Your task to perform on an android device: turn on improve location accuracy Image 0: 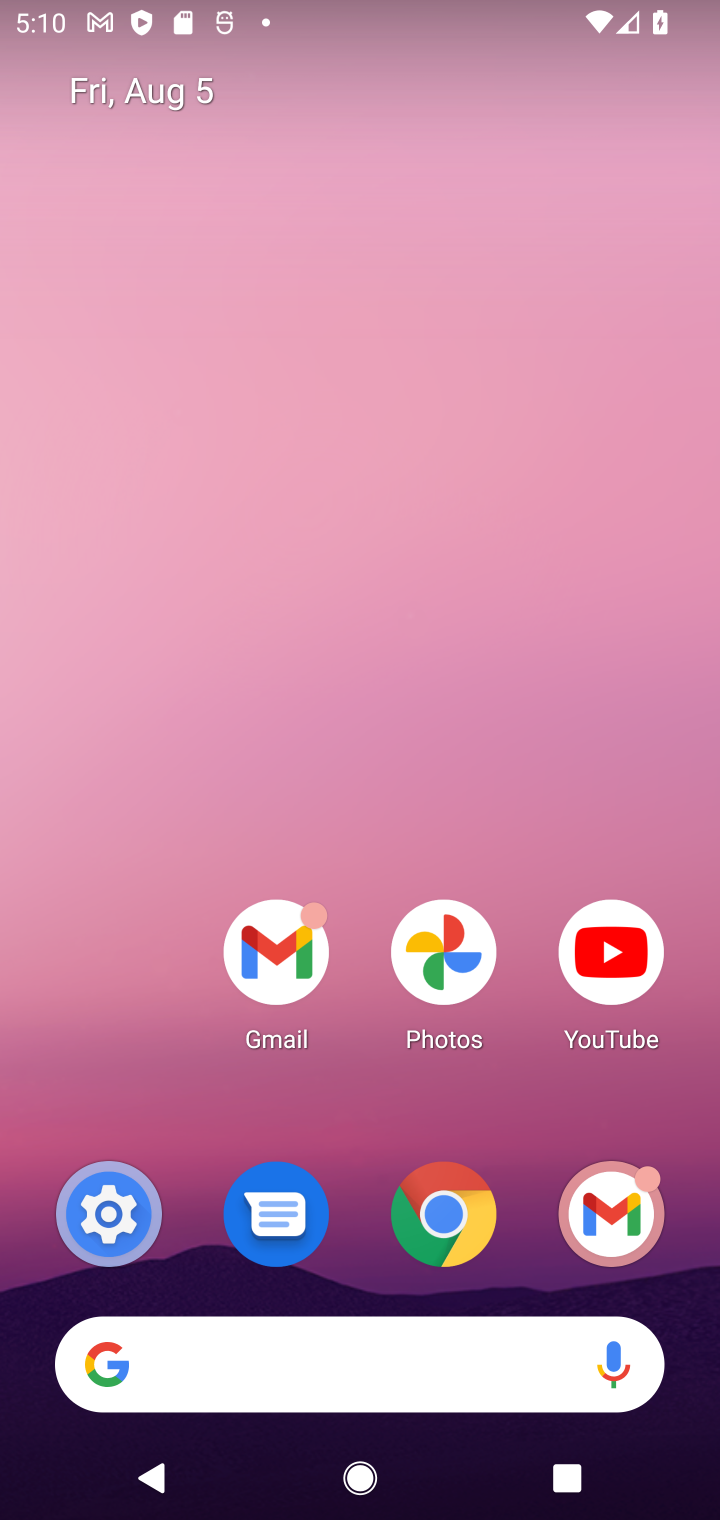
Step 0: click (111, 1238)
Your task to perform on an android device: turn on improve location accuracy Image 1: 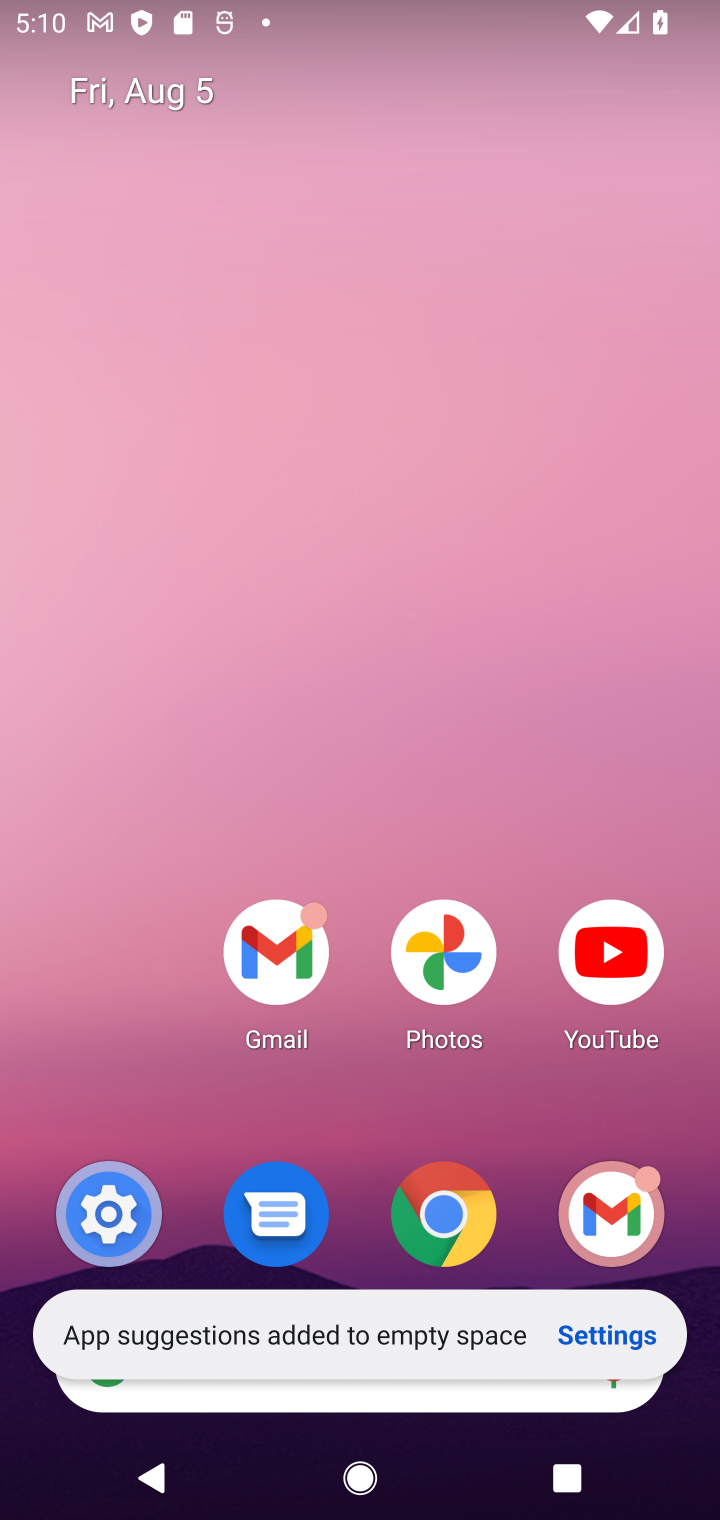
Step 1: click (111, 1238)
Your task to perform on an android device: turn on improve location accuracy Image 2: 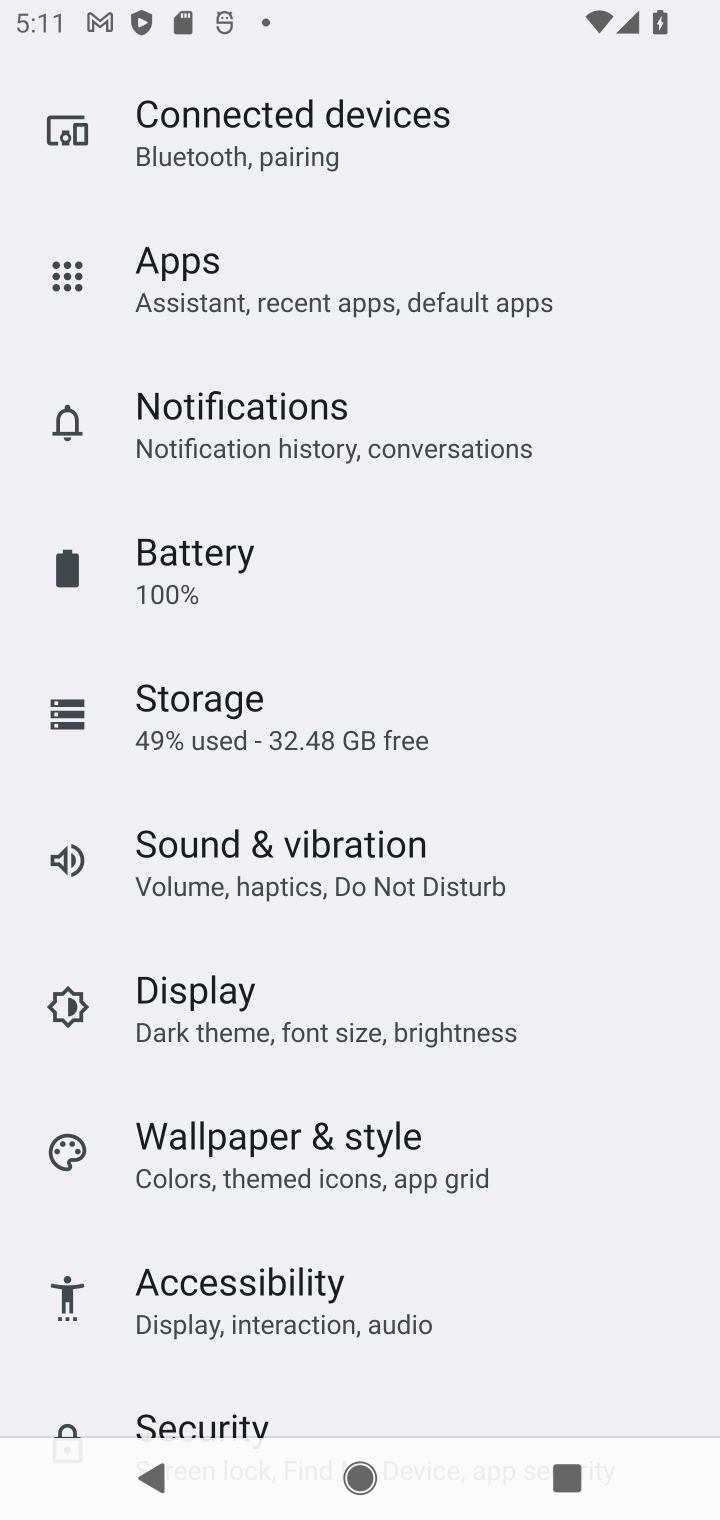
Step 2: drag from (440, 925) to (454, 0)
Your task to perform on an android device: turn on improve location accuracy Image 3: 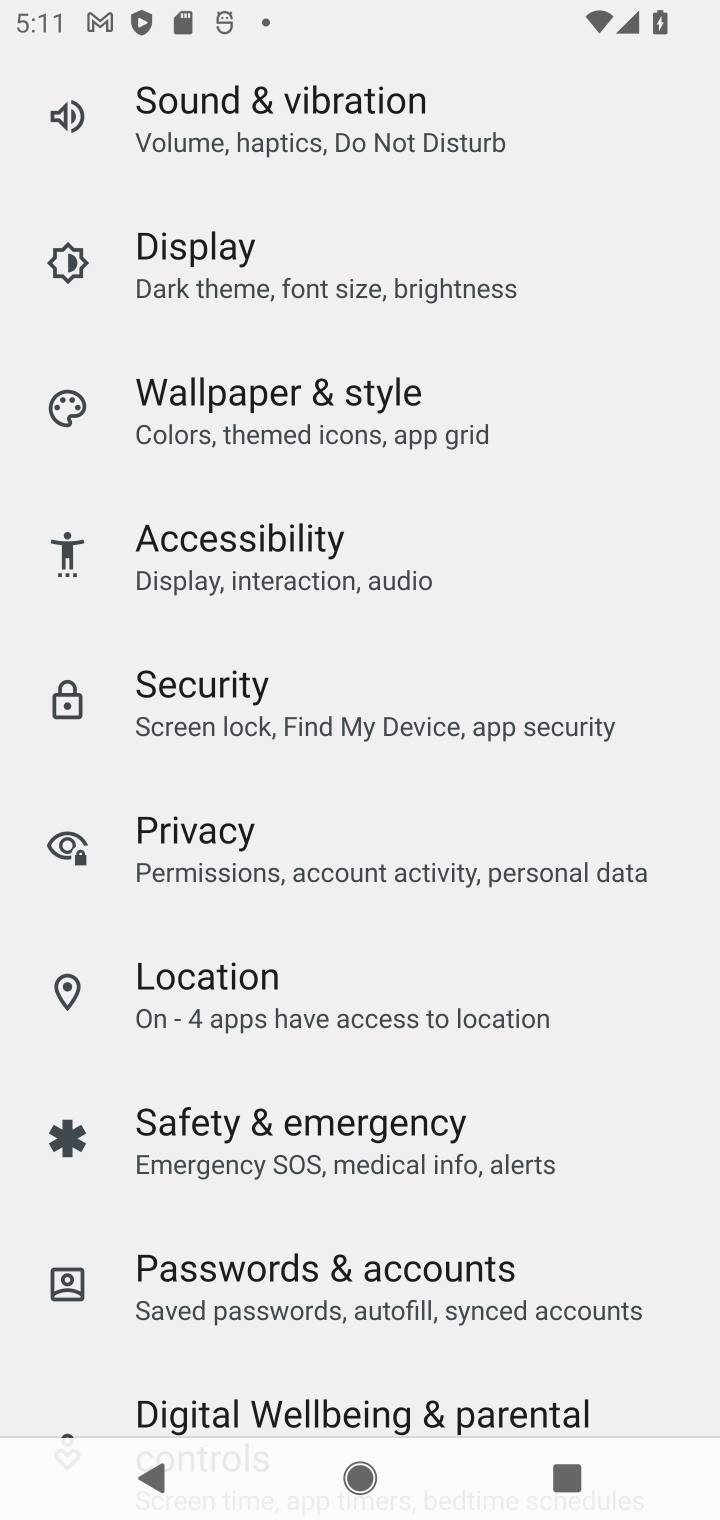
Step 3: click (308, 981)
Your task to perform on an android device: turn on improve location accuracy Image 4: 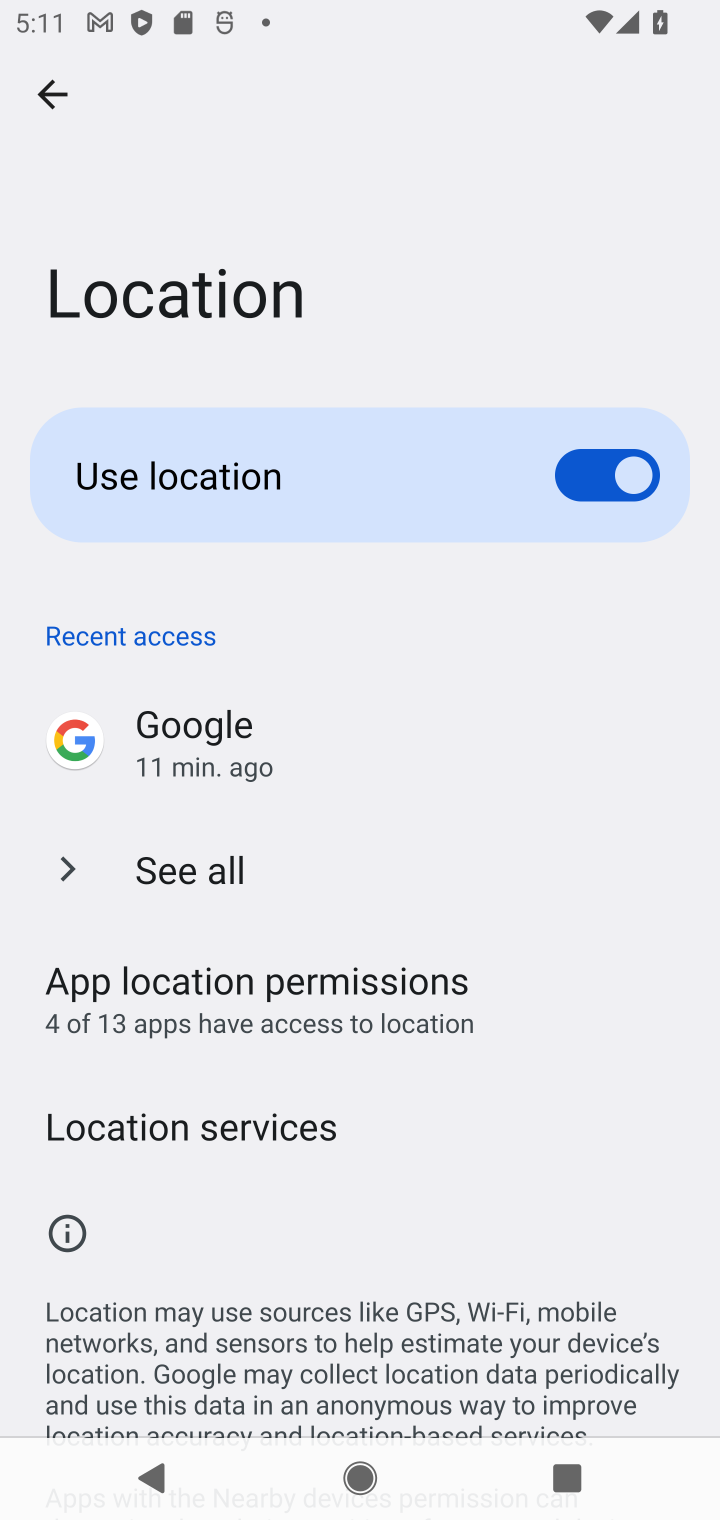
Step 4: drag from (461, 992) to (472, 438)
Your task to perform on an android device: turn on improve location accuracy Image 5: 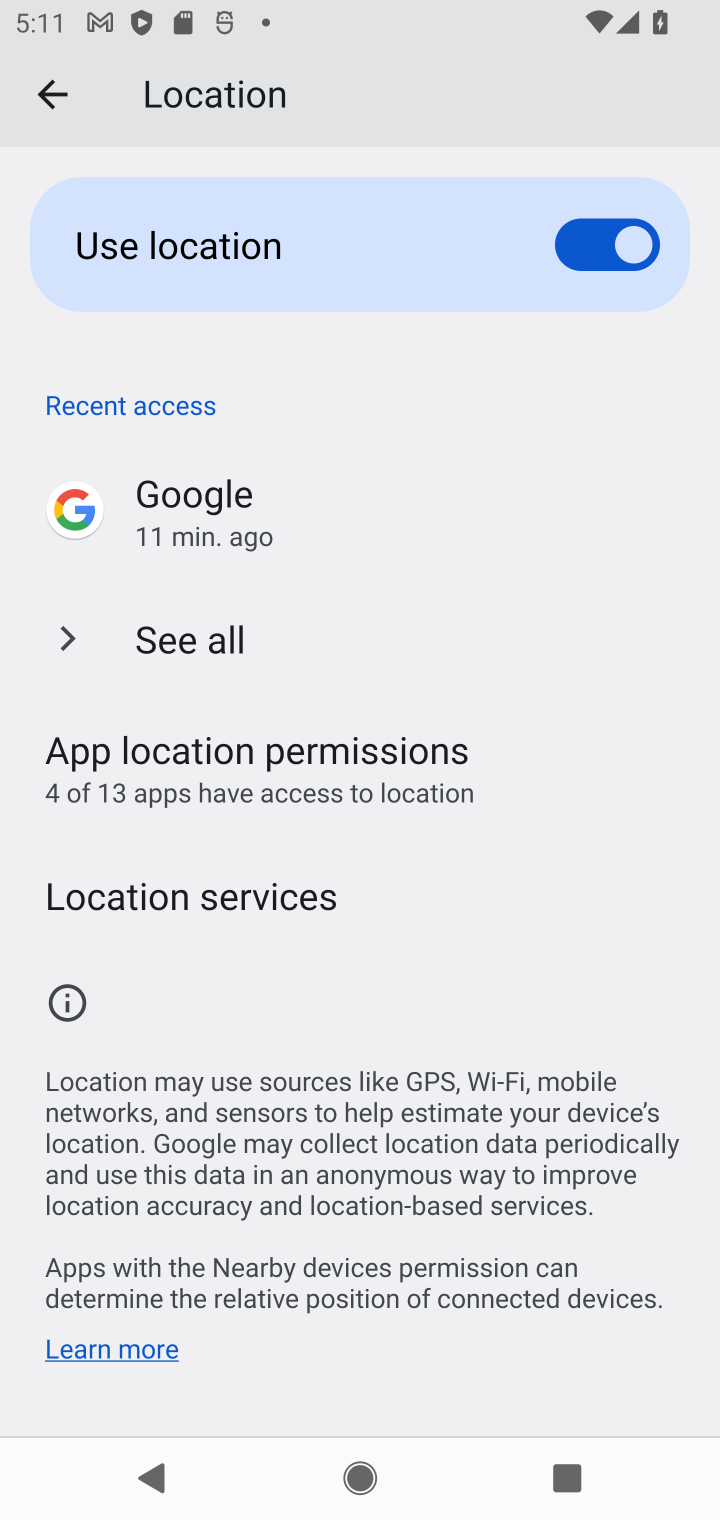
Step 5: click (67, 1005)
Your task to perform on an android device: turn on improve location accuracy Image 6: 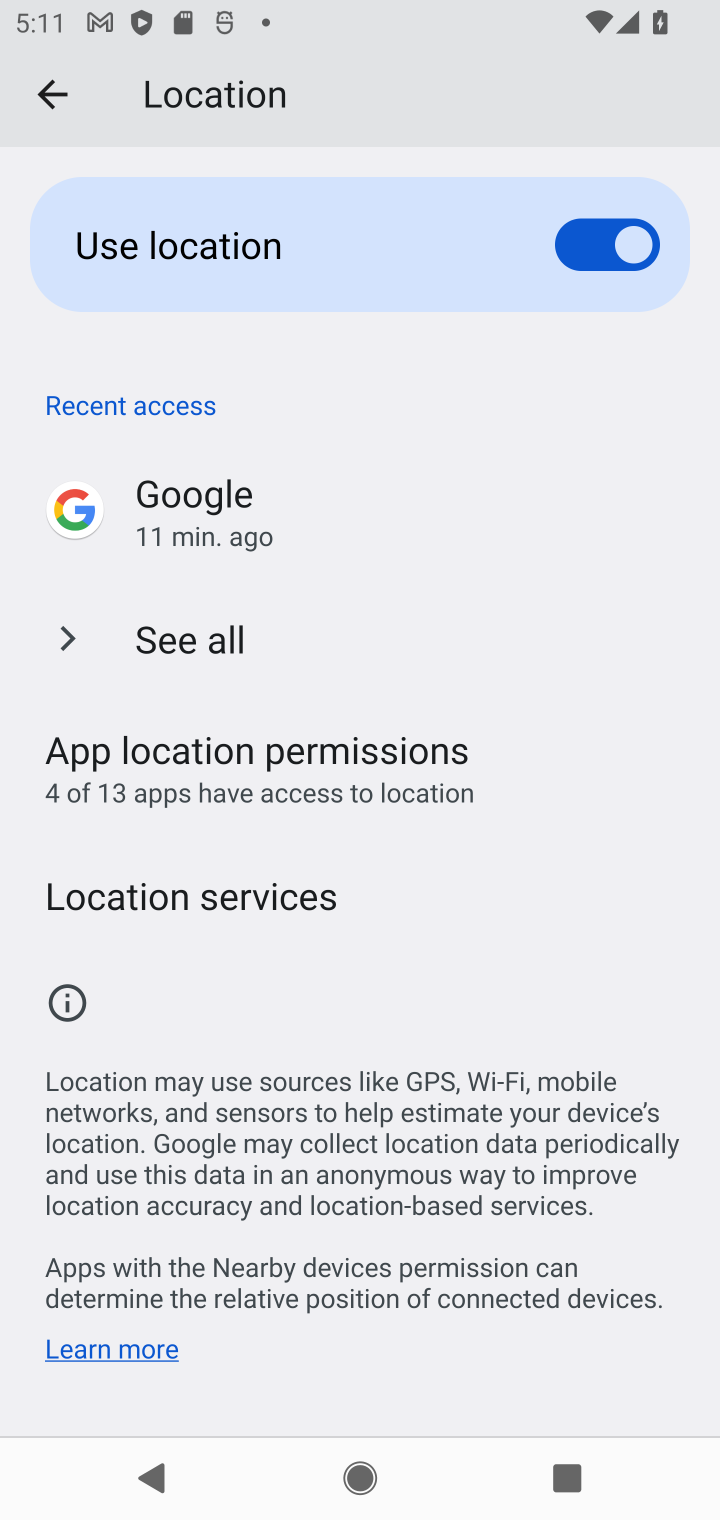
Step 6: click (178, 885)
Your task to perform on an android device: turn on improve location accuracy Image 7: 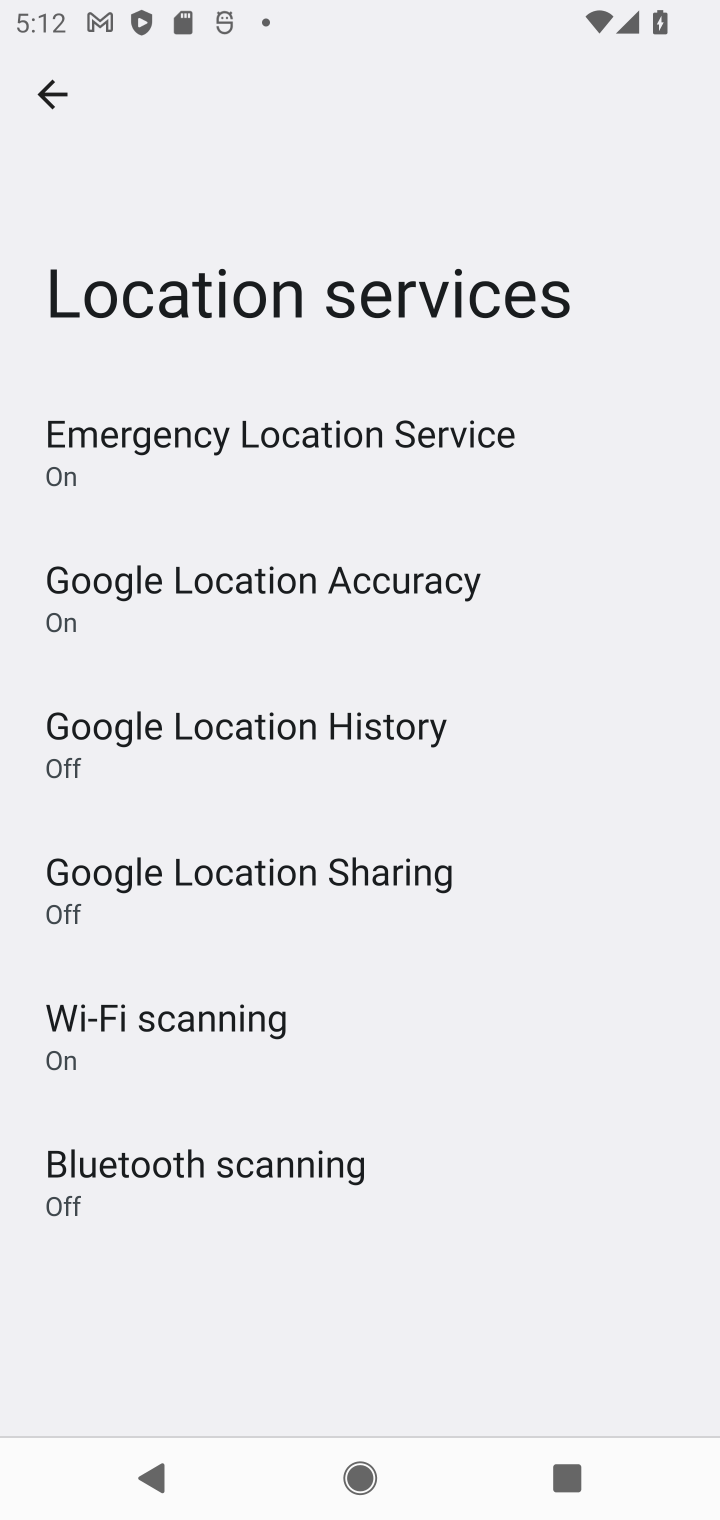
Step 7: click (284, 610)
Your task to perform on an android device: turn on improve location accuracy Image 8: 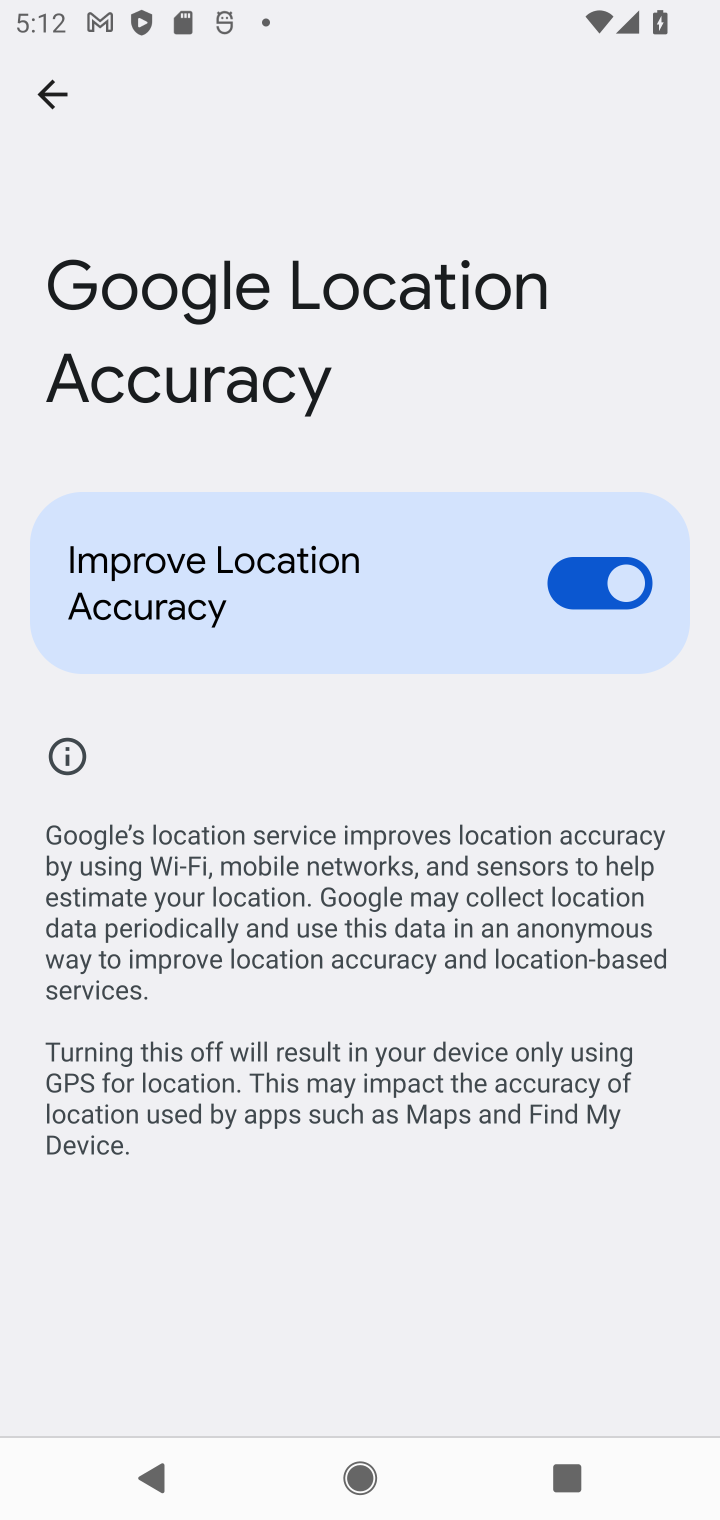
Step 8: task complete